Your task to perform on an android device: change text size in settings app Image 0: 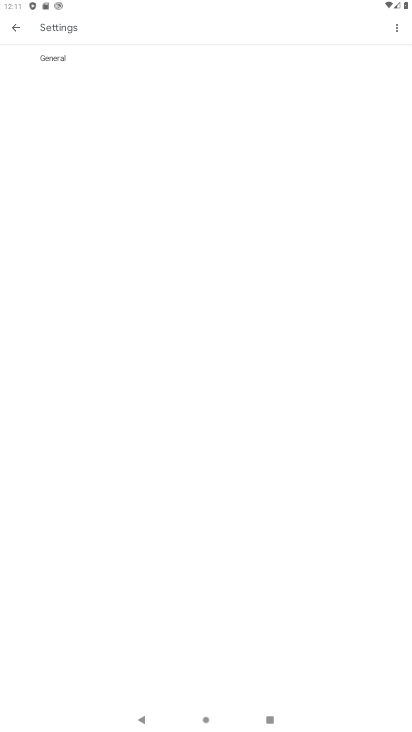
Step 0: press home button
Your task to perform on an android device: change text size in settings app Image 1: 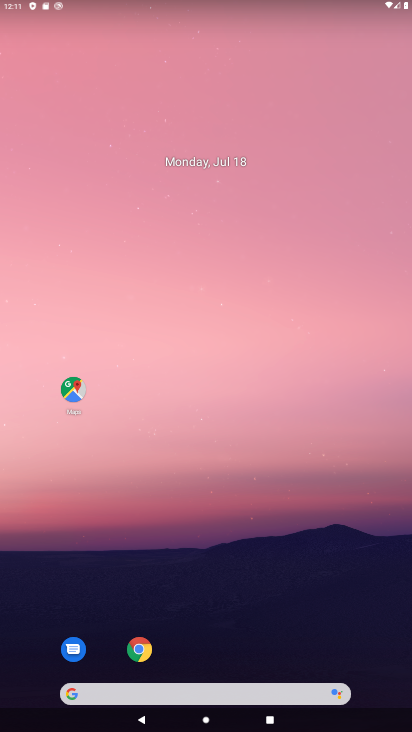
Step 1: drag from (66, 653) to (229, 144)
Your task to perform on an android device: change text size in settings app Image 2: 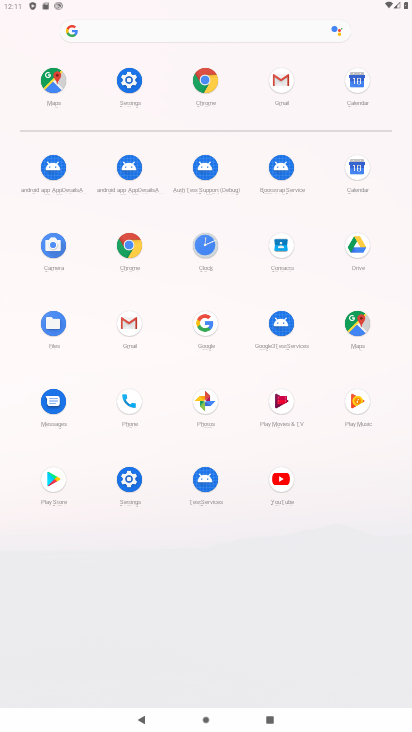
Step 2: click (115, 481)
Your task to perform on an android device: change text size in settings app Image 3: 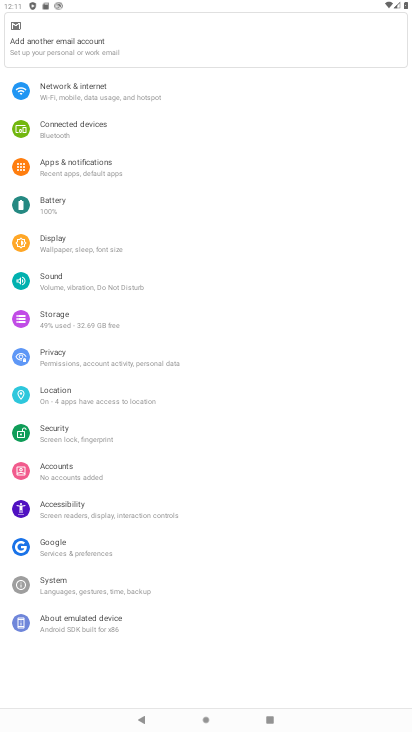
Step 3: click (97, 243)
Your task to perform on an android device: change text size in settings app Image 4: 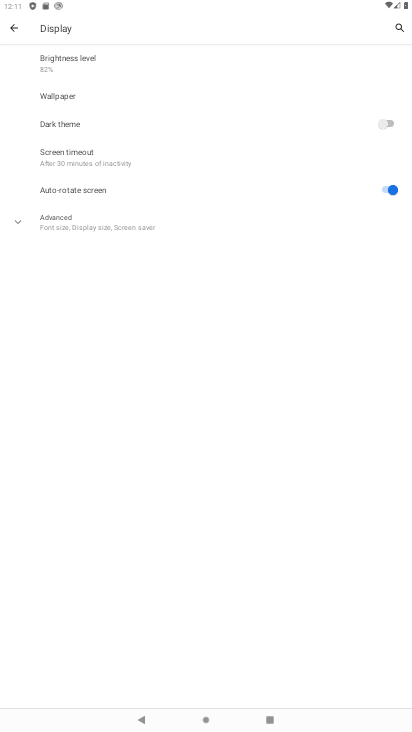
Step 4: click (108, 238)
Your task to perform on an android device: change text size in settings app Image 5: 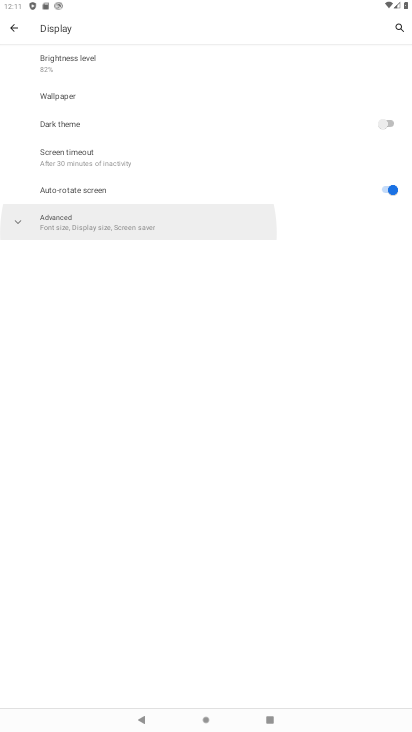
Step 5: click (108, 233)
Your task to perform on an android device: change text size in settings app Image 6: 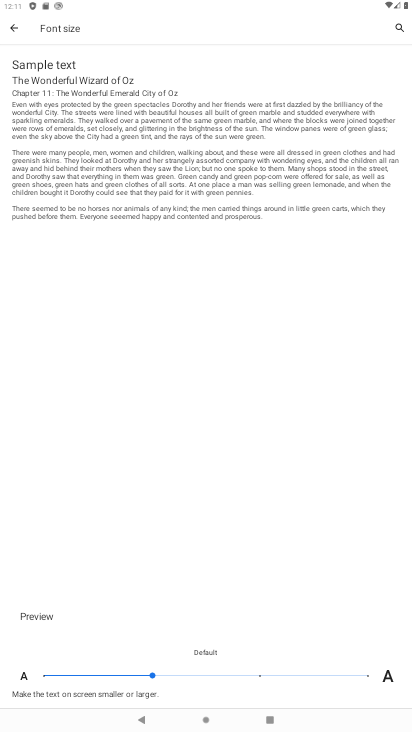
Step 6: click (260, 675)
Your task to perform on an android device: change text size in settings app Image 7: 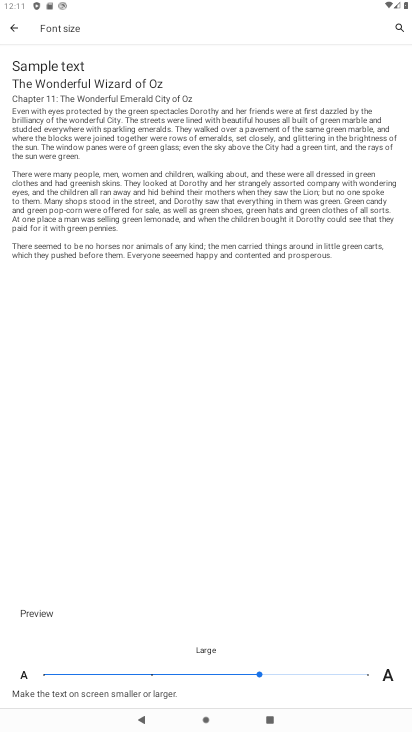
Step 7: task complete